Your task to perform on an android device: star an email in the gmail app Image 0: 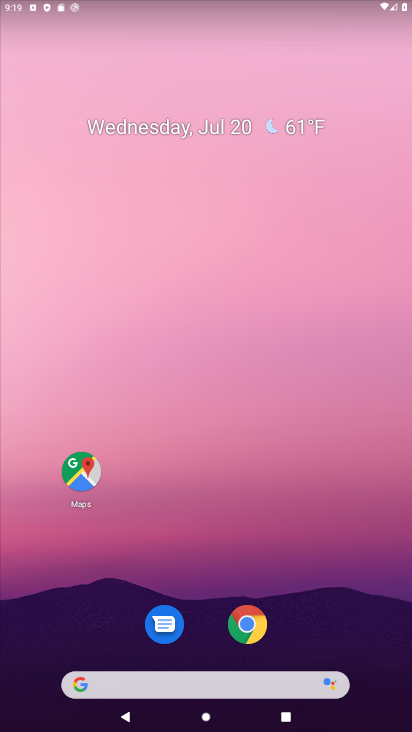
Step 0: drag from (207, 580) to (197, 189)
Your task to perform on an android device: star an email in the gmail app Image 1: 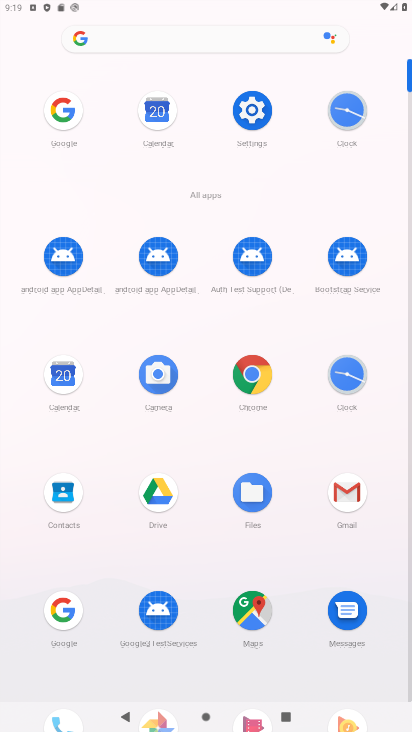
Step 1: click (336, 482)
Your task to perform on an android device: star an email in the gmail app Image 2: 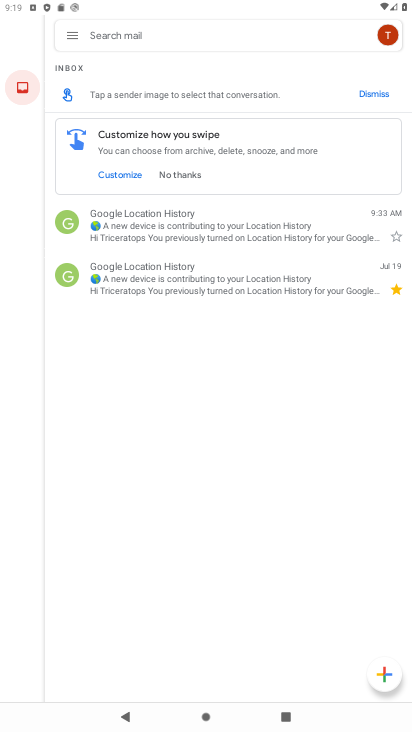
Step 2: click (394, 241)
Your task to perform on an android device: star an email in the gmail app Image 3: 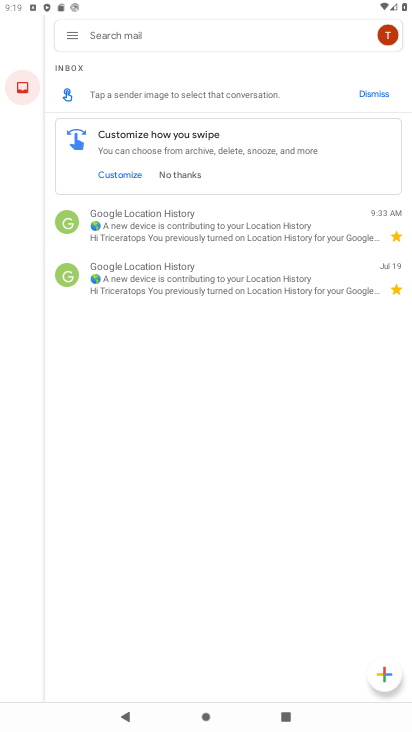
Step 3: task complete